Your task to perform on an android device: Go to Google Image 0: 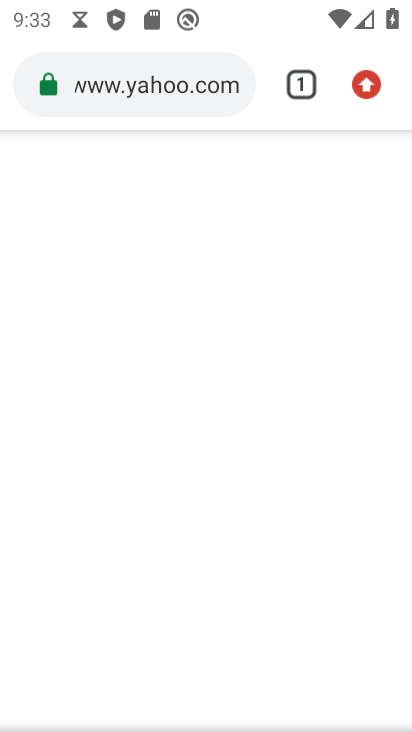
Step 0: press home button
Your task to perform on an android device: Go to Google Image 1: 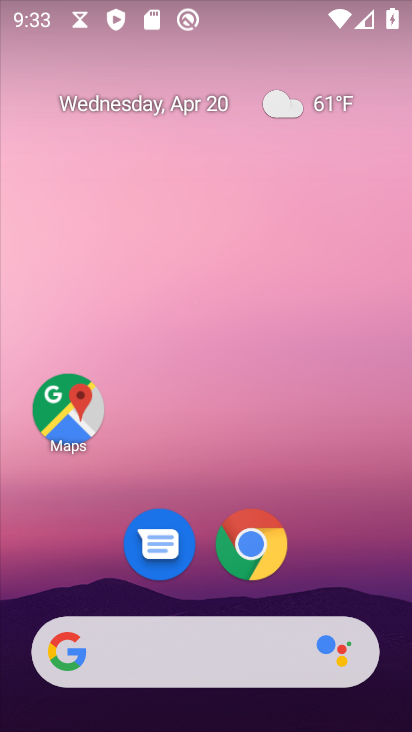
Step 1: drag from (206, 601) to (346, 86)
Your task to perform on an android device: Go to Google Image 2: 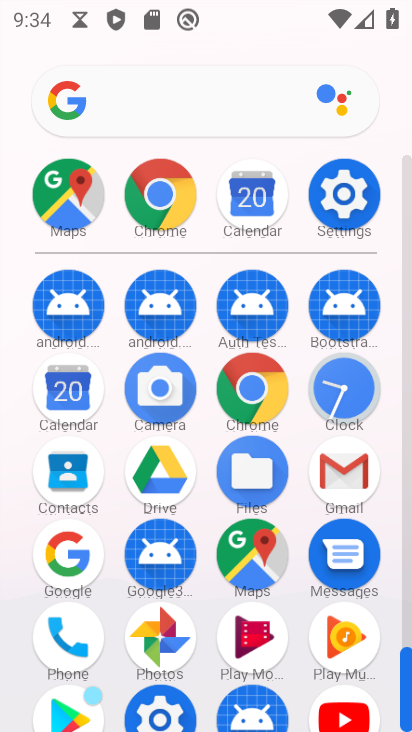
Step 2: click (64, 564)
Your task to perform on an android device: Go to Google Image 3: 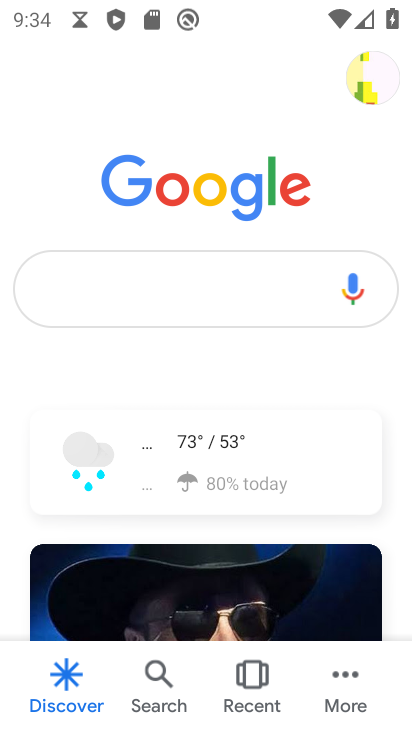
Step 3: task complete